Your task to perform on an android device: Go to accessibility settings Image 0: 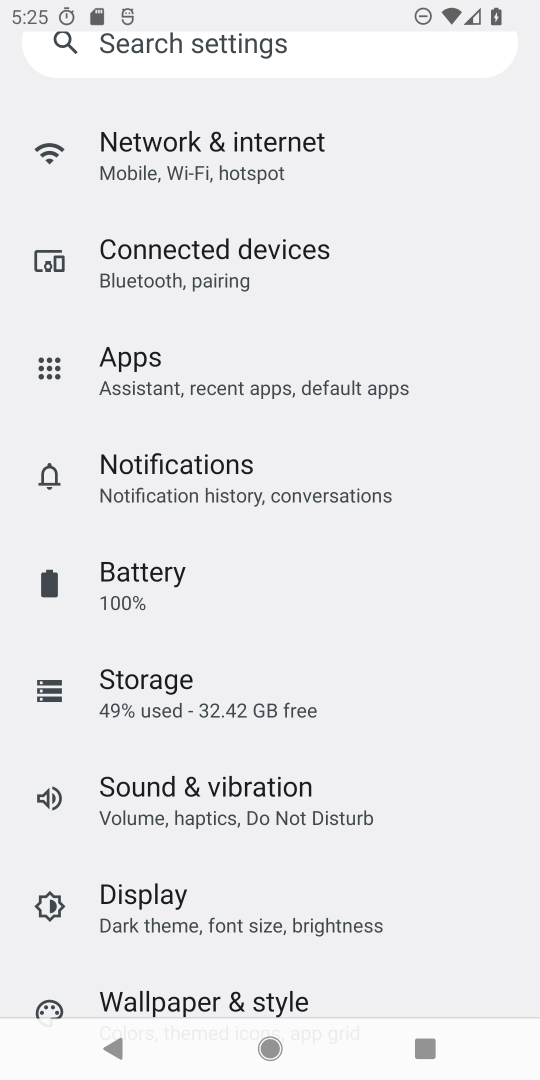
Step 0: drag from (483, 859) to (482, 592)
Your task to perform on an android device: Go to accessibility settings Image 1: 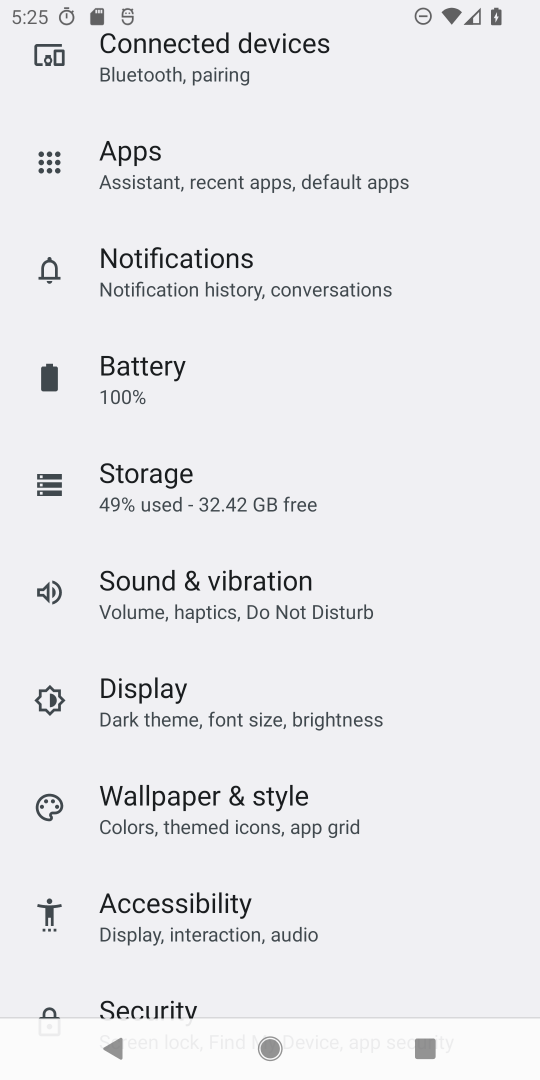
Step 1: click (221, 919)
Your task to perform on an android device: Go to accessibility settings Image 2: 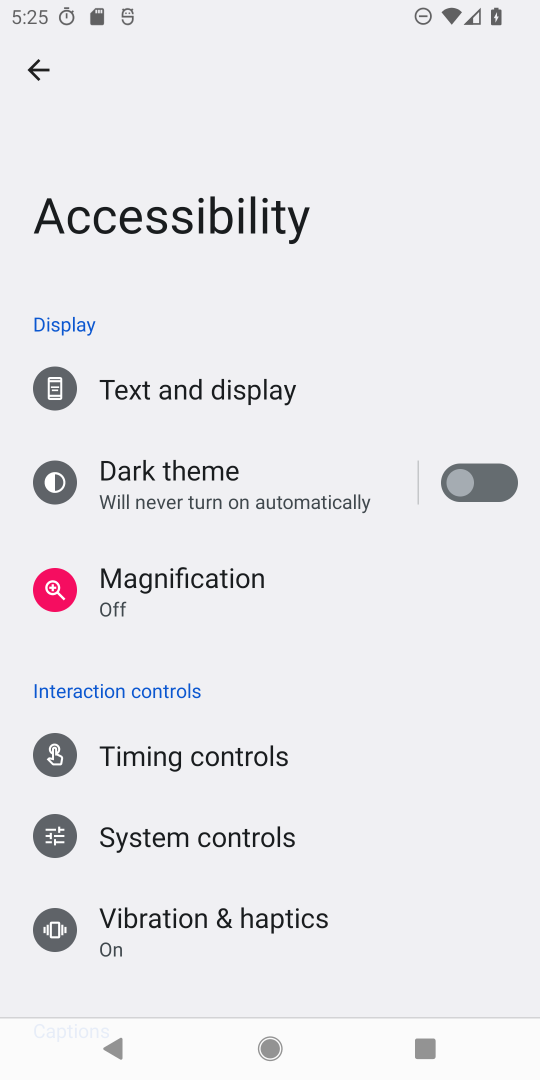
Step 2: task complete